Your task to perform on an android device: open device folders in google photos Image 0: 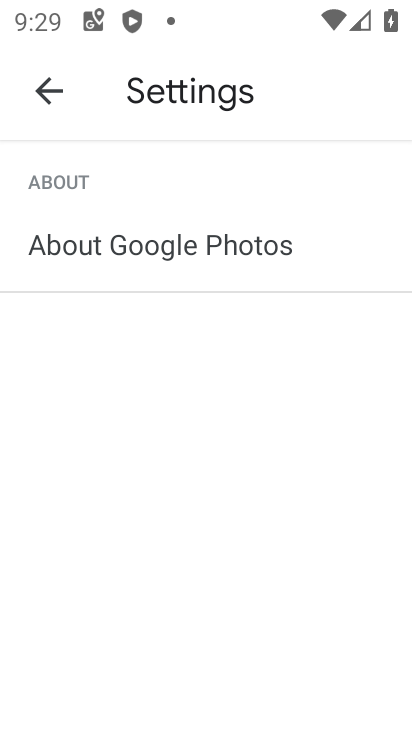
Step 0: press home button
Your task to perform on an android device: open device folders in google photos Image 1: 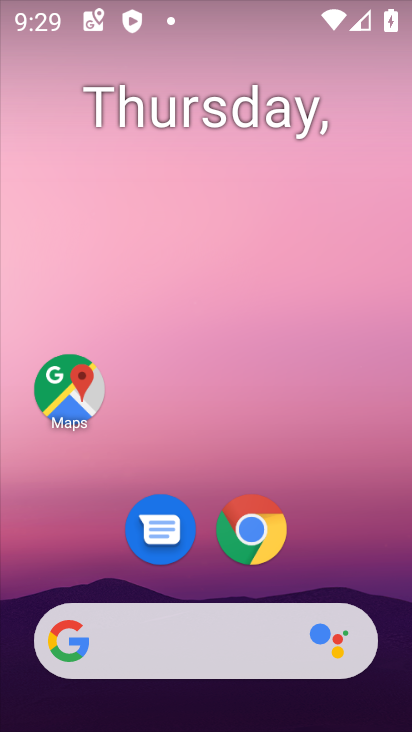
Step 1: drag from (337, 536) to (244, 140)
Your task to perform on an android device: open device folders in google photos Image 2: 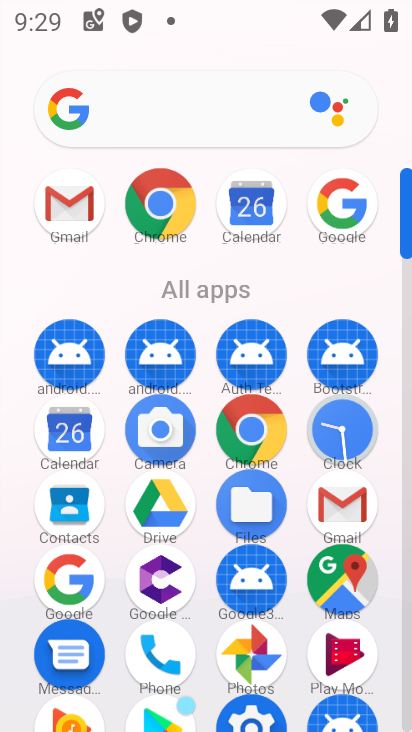
Step 2: drag from (298, 468) to (321, 245)
Your task to perform on an android device: open device folders in google photos Image 3: 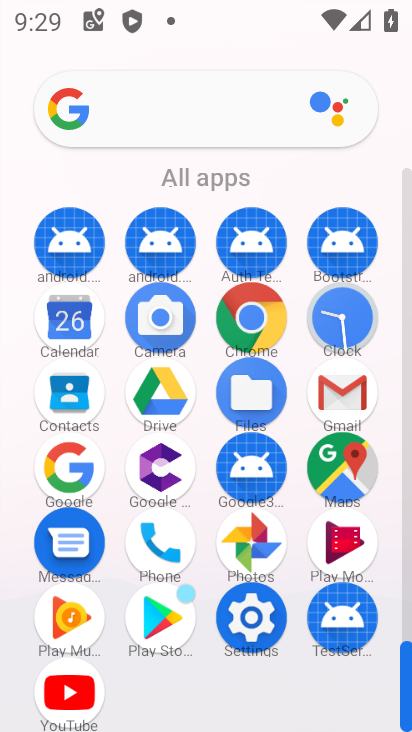
Step 3: click (253, 543)
Your task to perform on an android device: open device folders in google photos Image 4: 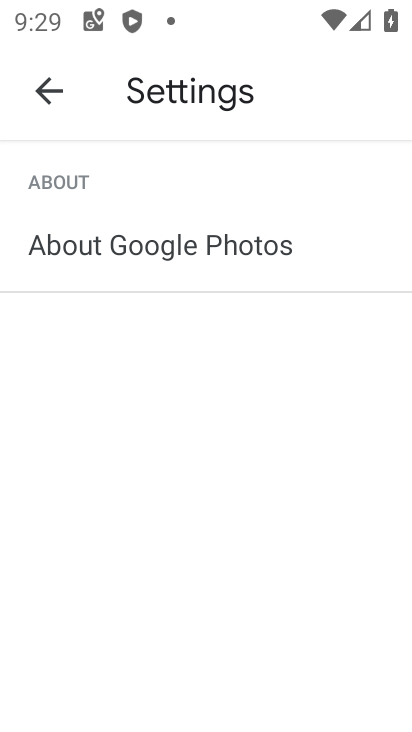
Step 4: press back button
Your task to perform on an android device: open device folders in google photos Image 5: 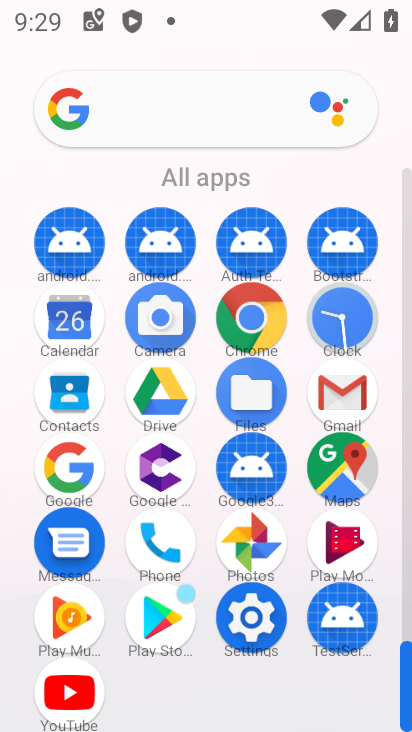
Step 5: click (251, 540)
Your task to perform on an android device: open device folders in google photos Image 6: 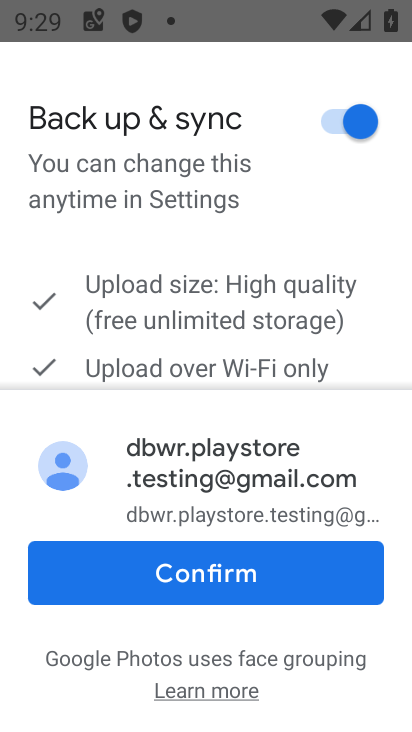
Step 6: click (220, 575)
Your task to perform on an android device: open device folders in google photos Image 7: 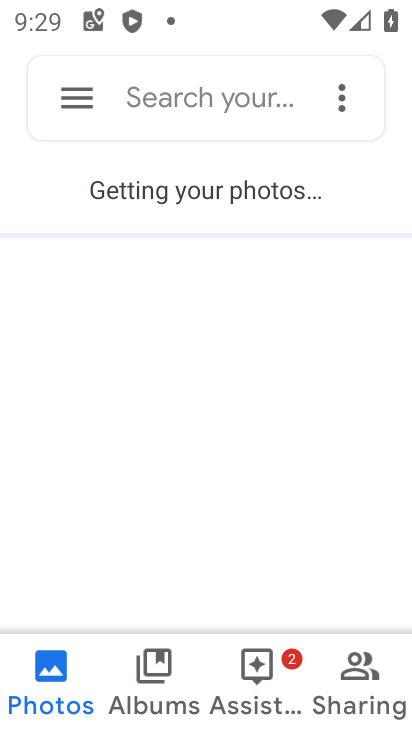
Step 7: click (86, 105)
Your task to perform on an android device: open device folders in google photos Image 8: 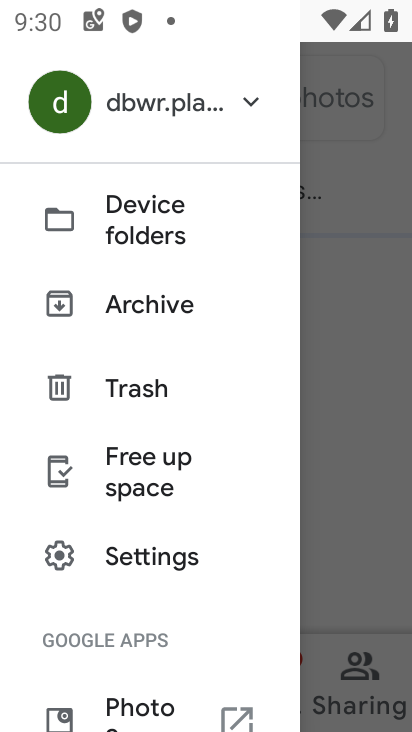
Step 8: click (135, 217)
Your task to perform on an android device: open device folders in google photos Image 9: 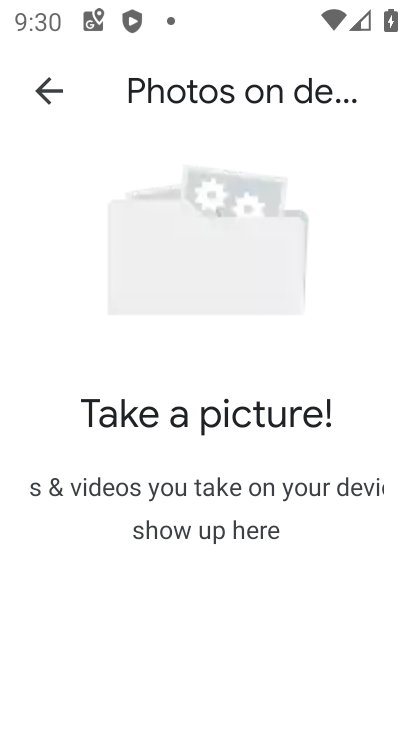
Step 9: task complete